Your task to perform on an android device: Go to wifi settings Image 0: 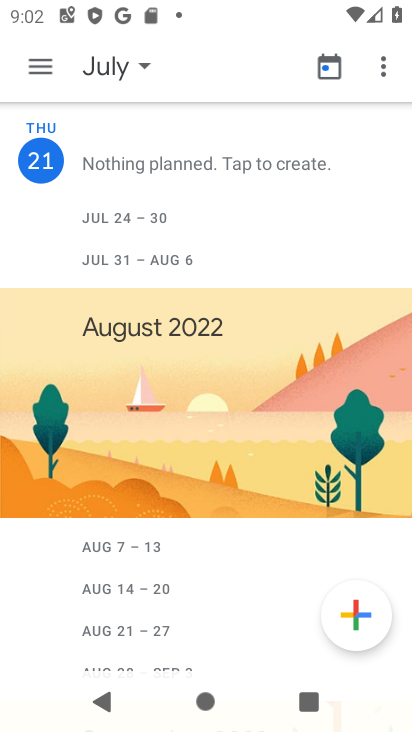
Step 0: press home button
Your task to perform on an android device: Go to wifi settings Image 1: 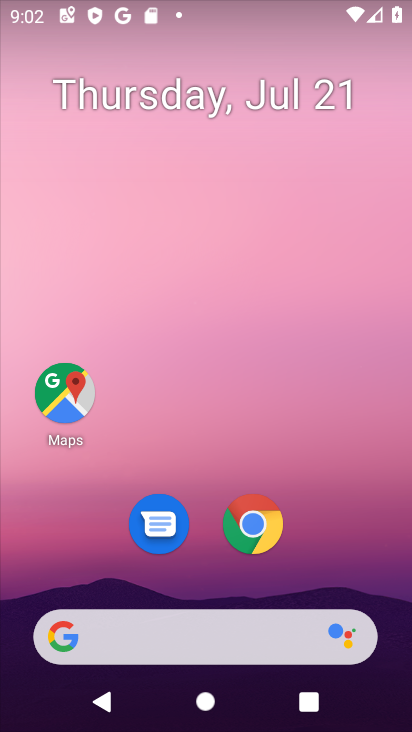
Step 1: drag from (164, 640) to (270, 27)
Your task to perform on an android device: Go to wifi settings Image 2: 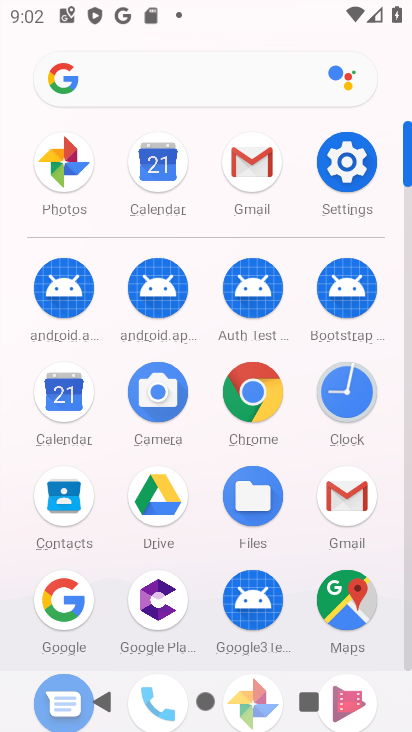
Step 2: click (339, 163)
Your task to perform on an android device: Go to wifi settings Image 3: 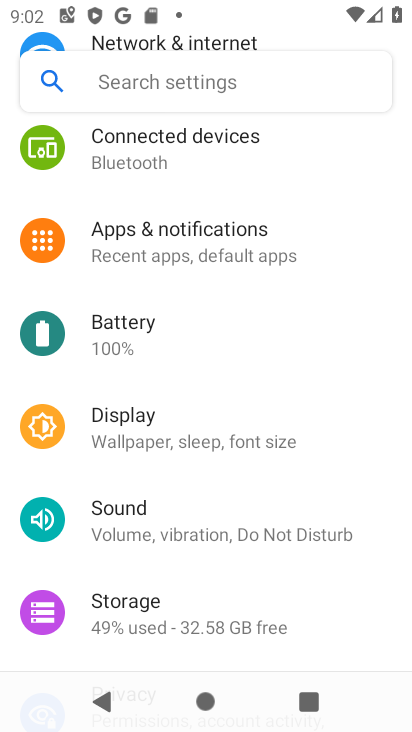
Step 3: drag from (312, 155) to (238, 602)
Your task to perform on an android device: Go to wifi settings Image 4: 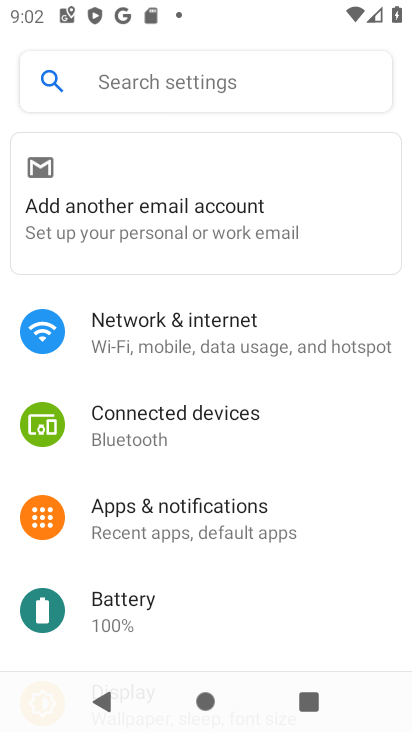
Step 4: click (211, 327)
Your task to perform on an android device: Go to wifi settings Image 5: 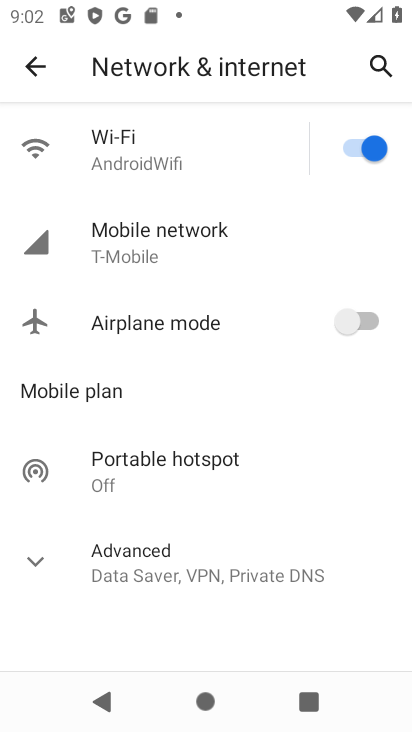
Step 5: click (126, 148)
Your task to perform on an android device: Go to wifi settings Image 6: 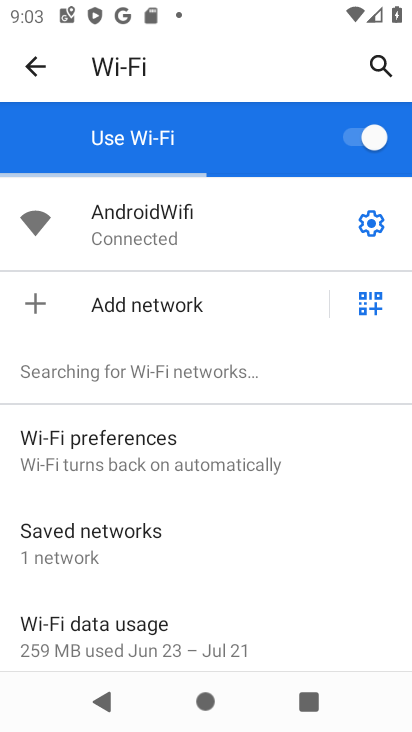
Step 6: task complete